Your task to perform on an android device: choose inbox layout in the gmail app Image 0: 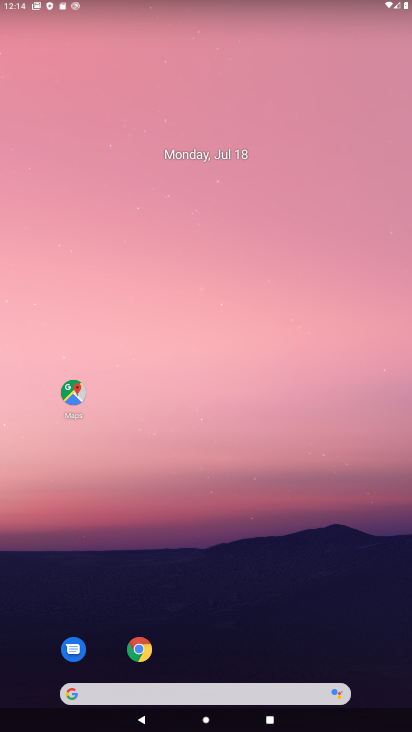
Step 0: drag from (370, 640) to (327, 267)
Your task to perform on an android device: choose inbox layout in the gmail app Image 1: 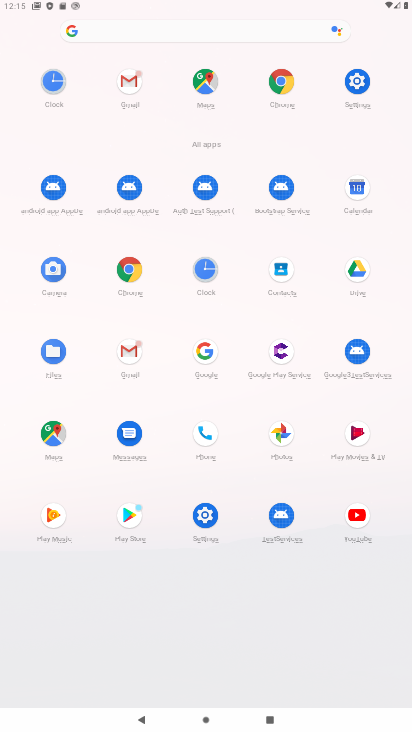
Step 1: click (127, 353)
Your task to perform on an android device: choose inbox layout in the gmail app Image 2: 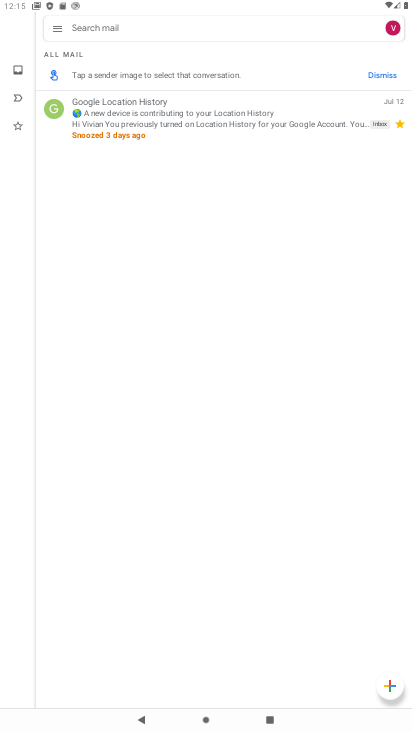
Step 2: click (56, 29)
Your task to perform on an android device: choose inbox layout in the gmail app Image 3: 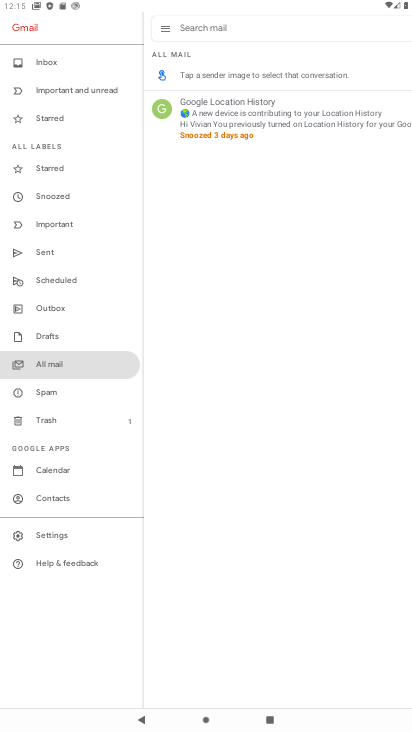
Step 3: click (51, 539)
Your task to perform on an android device: choose inbox layout in the gmail app Image 4: 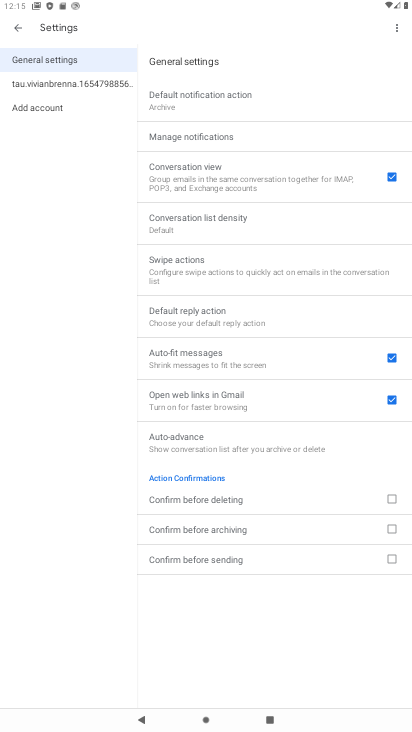
Step 4: click (28, 79)
Your task to perform on an android device: choose inbox layout in the gmail app Image 5: 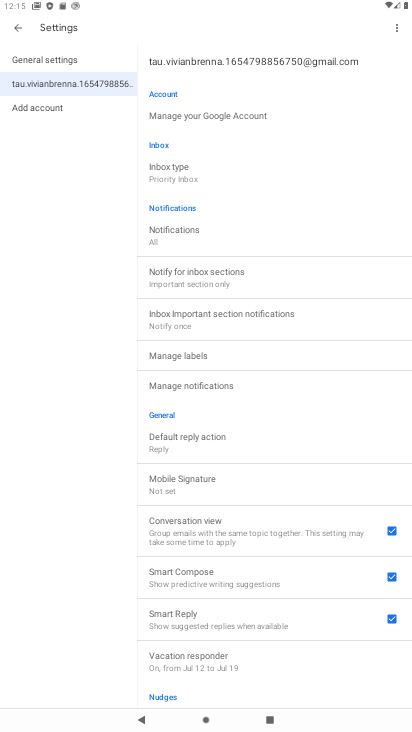
Step 5: click (171, 167)
Your task to perform on an android device: choose inbox layout in the gmail app Image 6: 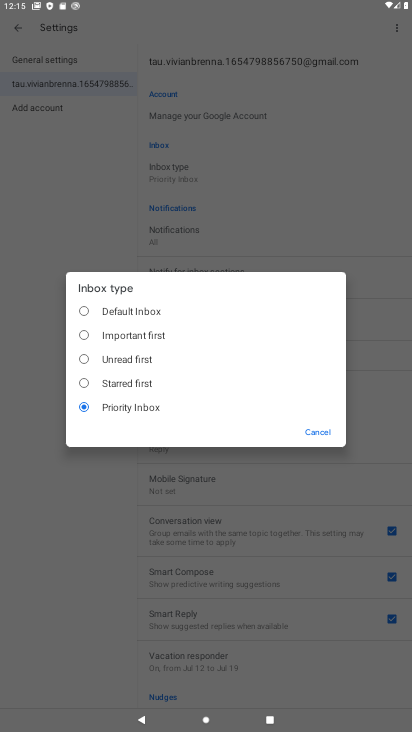
Step 6: click (87, 310)
Your task to perform on an android device: choose inbox layout in the gmail app Image 7: 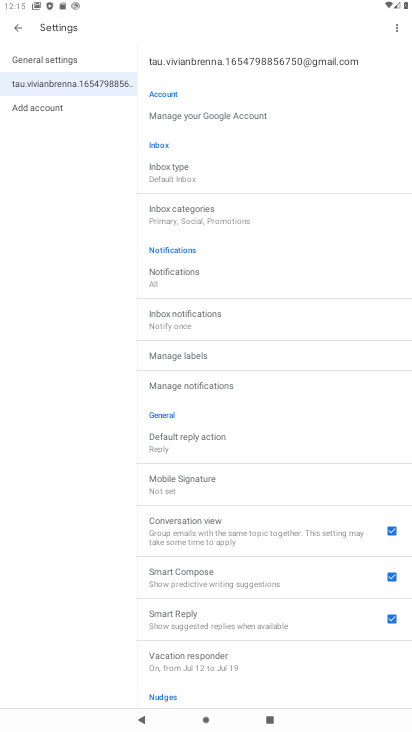
Step 7: task complete